Your task to perform on an android device: change alarm snooze length Image 0: 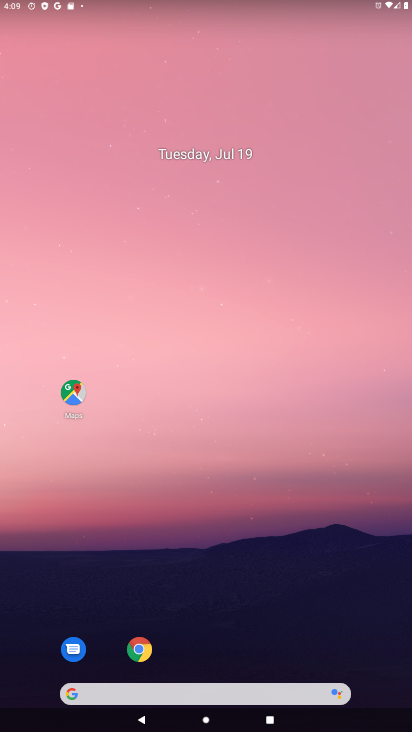
Step 0: drag from (277, 657) to (244, 287)
Your task to perform on an android device: change alarm snooze length Image 1: 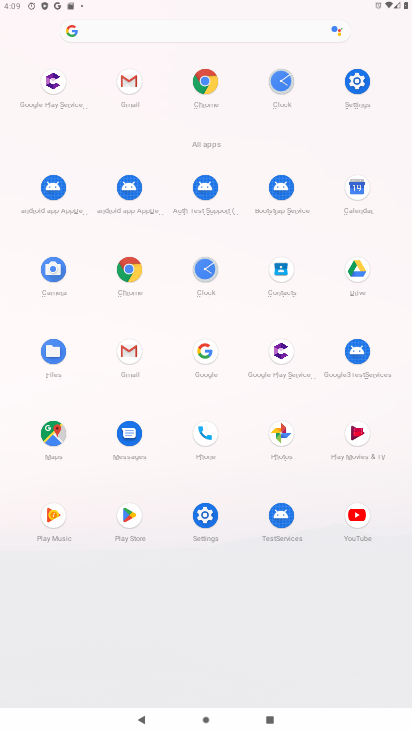
Step 1: click (279, 83)
Your task to perform on an android device: change alarm snooze length Image 2: 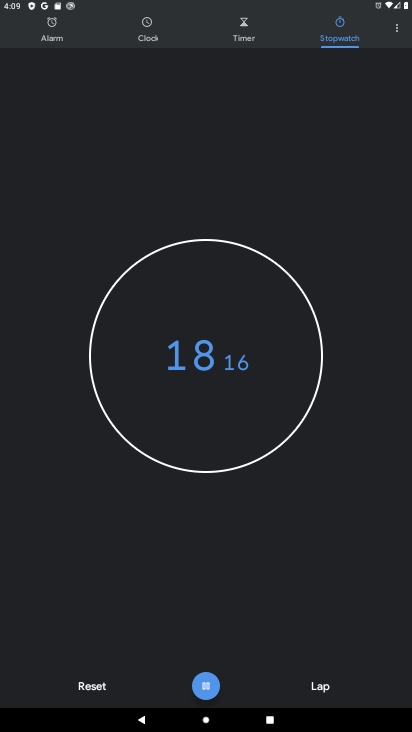
Step 2: click (392, 27)
Your task to perform on an android device: change alarm snooze length Image 3: 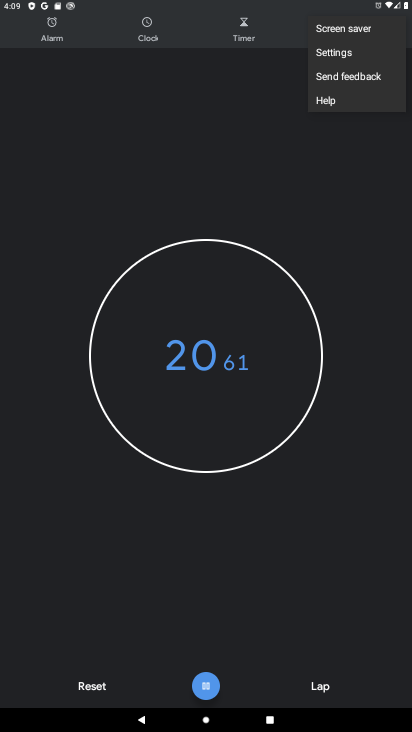
Step 3: click (356, 44)
Your task to perform on an android device: change alarm snooze length Image 4: 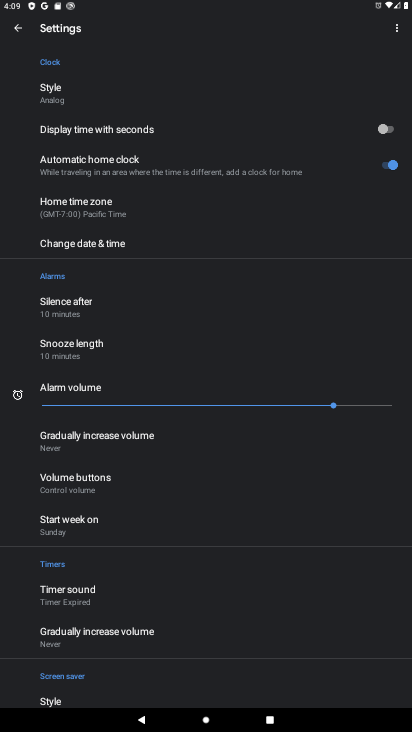
Step 4: click (149, 335)
Your task to perform on an android device: change alarm snooze length Image 5: 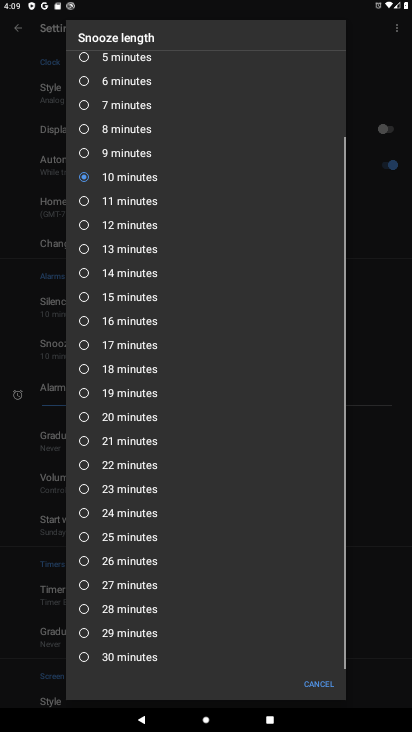
Step 5: click (149, 335)
Your task to perform on an android device: change alarm snooze length Image 6: 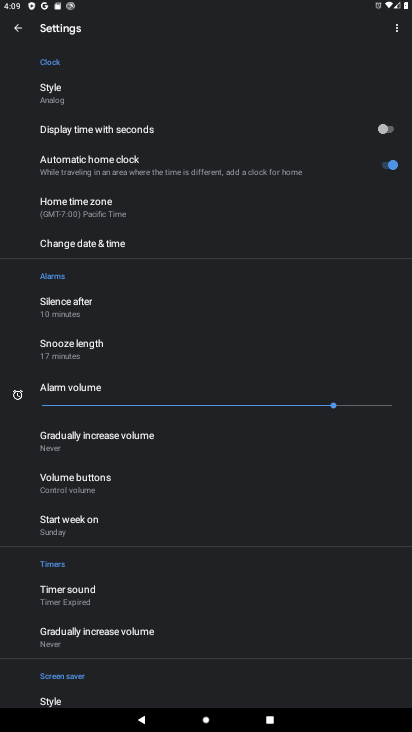
Step 6: task complete